Your task to perform on an android device: Go to sound settings Image 0: 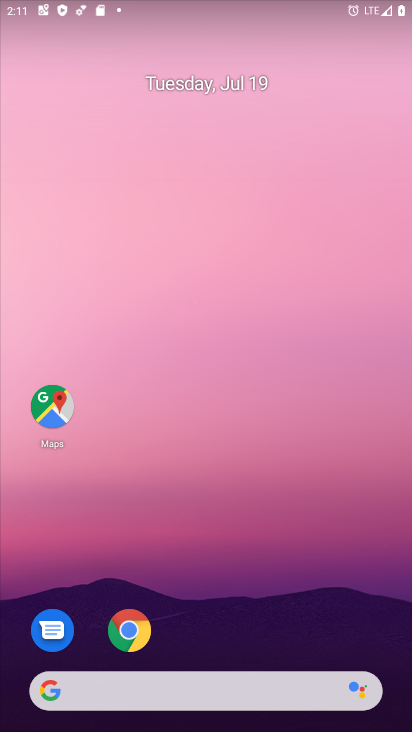
Step 0: press home button
Your task to perform on an android device: Go to sound settings Image 1: 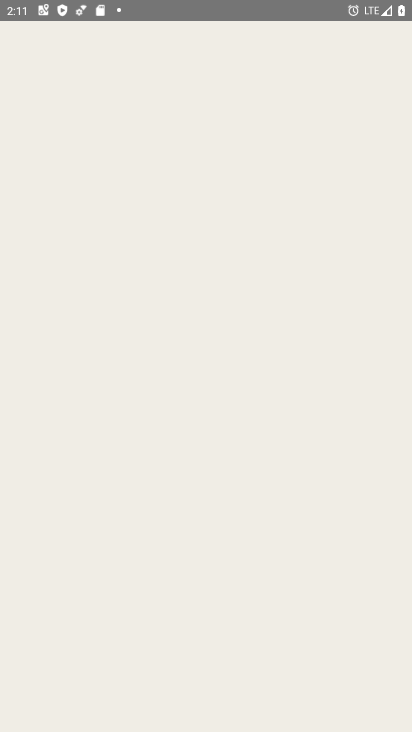
Step 1: drag from (200, 492) to (210, 80)
Your task to perform on an android device: Go to sound settings Image 2: 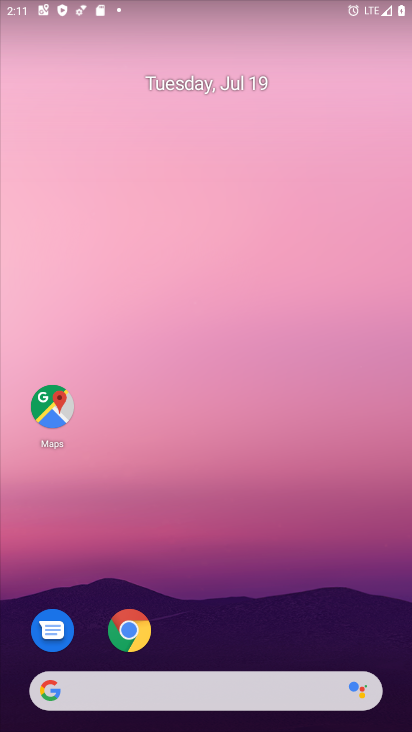
Step 2: drag from (218, 660) to (227, 73)
Your task to perform on an android device: Go to sound settings Image 3: 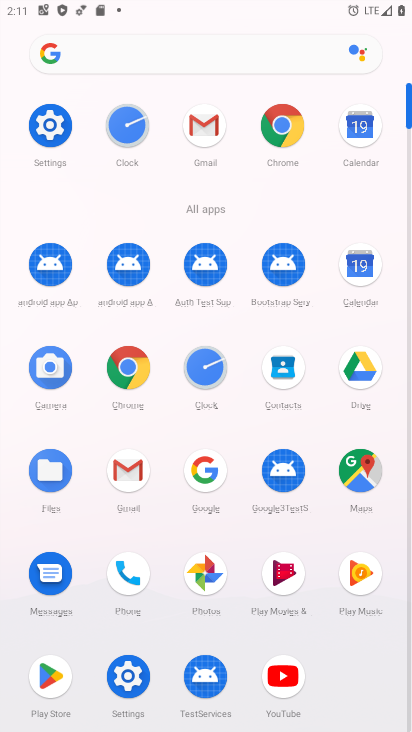
Step 3: click (48, 121)
Your task to perform on an android device: Go to sound settings Image 4: 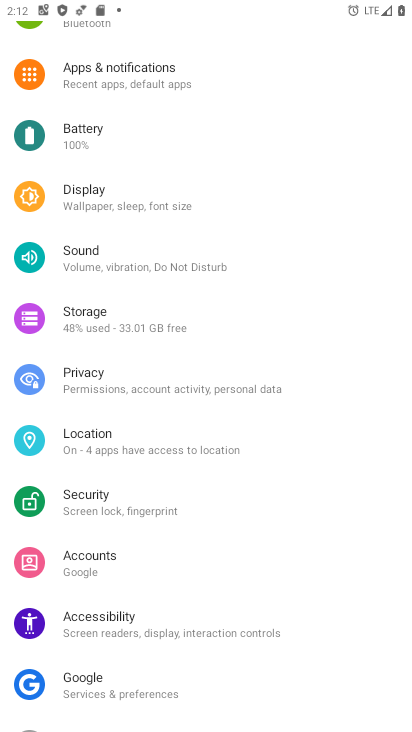
Step 4: click (115, 250)
Your task to perform on an android device: Go to sound settings Image 5: 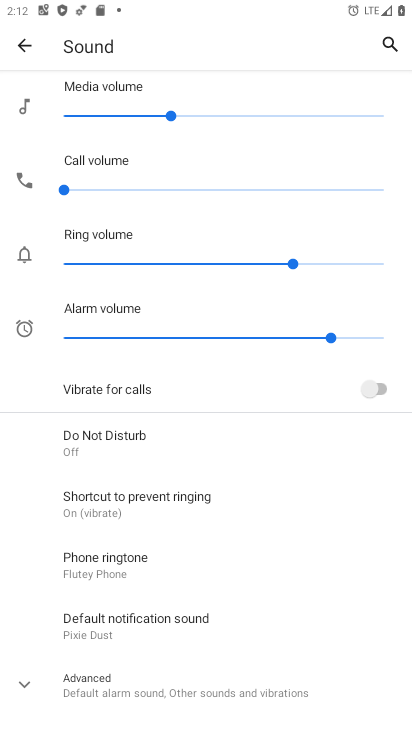
Step 5: click (29, 676)
Your task to perform on an android device: Go to sound settings Image 6: 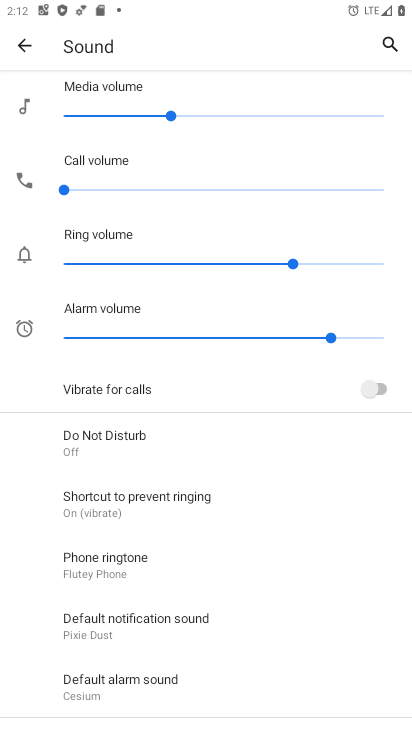
Step 6: task complete